Your task to perform on an android device: turn off picture-in-picture Image 0: 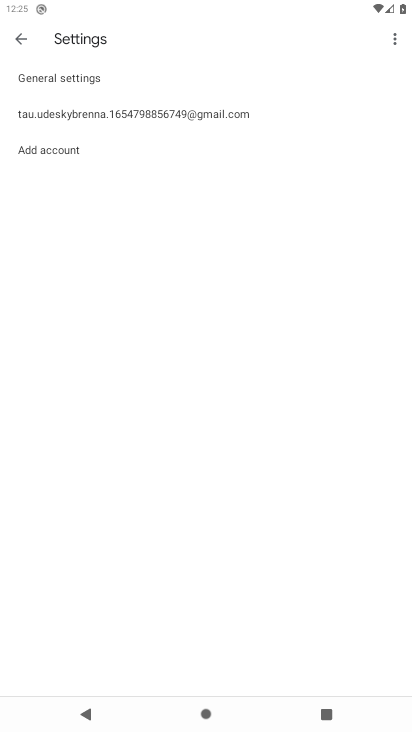
Step 0: press home button
Your task to perform on an android device: turn off picture-in-picture Image 1: 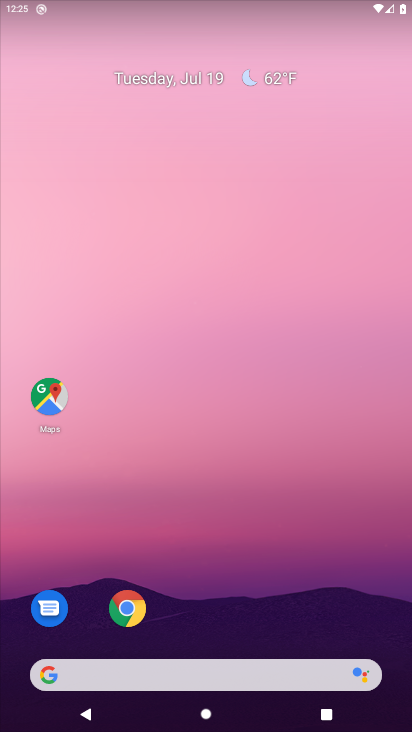
Step 1: click (124, 608)
Your task to perform on an android device: turn off picture-in-picture Image 2: 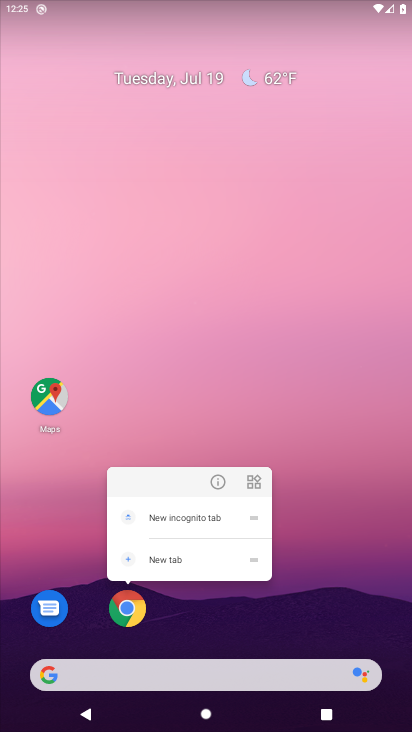
Step 2: click (214, 480)
Your task to perform on an android device: turn off picture-in-picture Image 3: 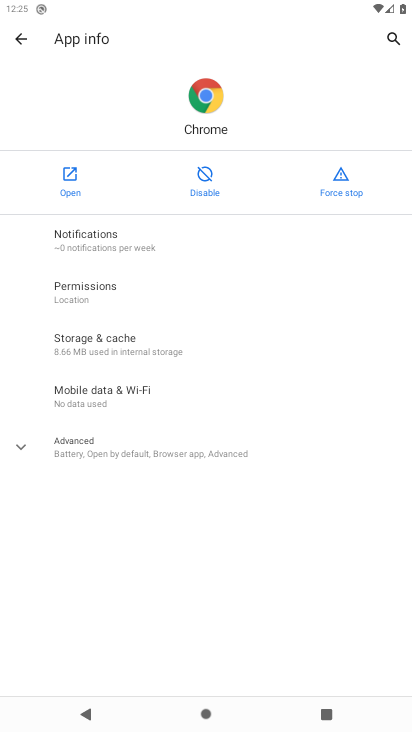
Step 3: click (20, 445)
Your task to perform on an android device: turn off picture-in-picture Image 4: 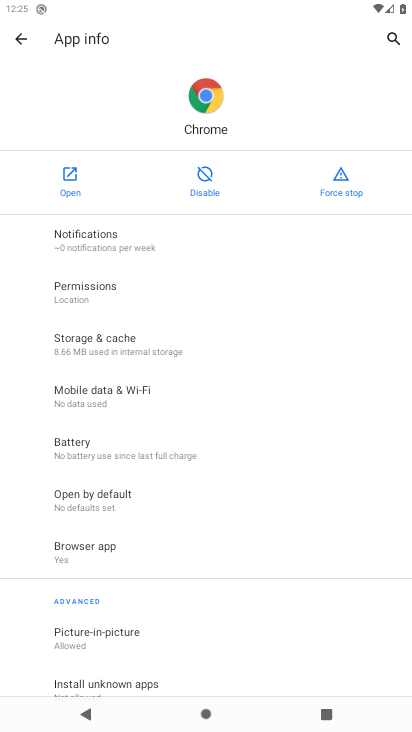
Step 4: click (93, 638)
Your task to perform on an android device: turn off picture-in-picture Image 5: 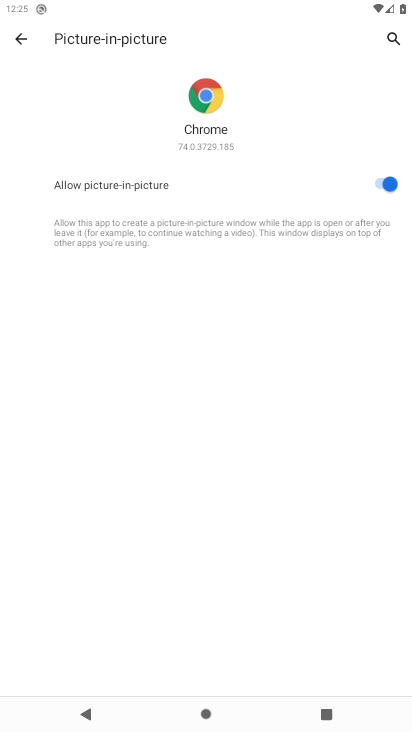
Step 5: click (374, 189)
Your task to perform on an android device: turn off picture-in-picture Image 6: 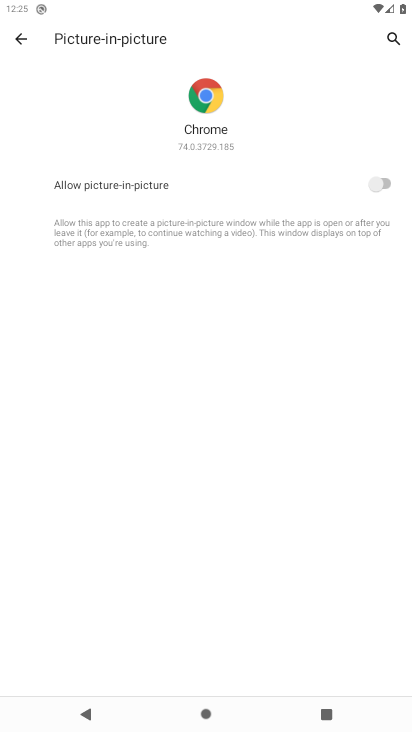
Step 6: task complete